Your task to perform on an android device: Open wifi settings Image 0: 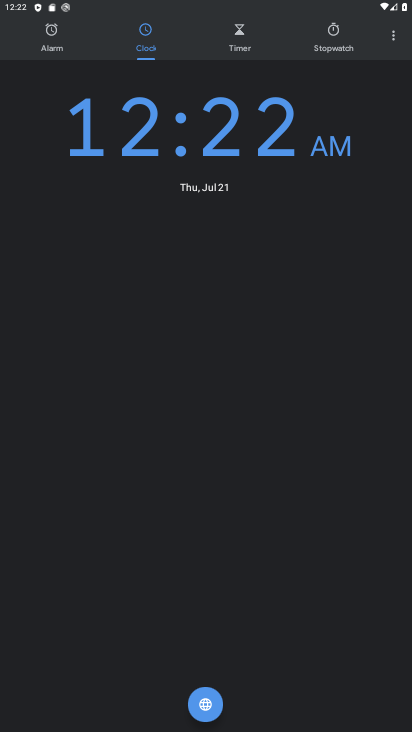
Step 0: press home button
Your task to perform on an android device: Open wifi settings Image 1: 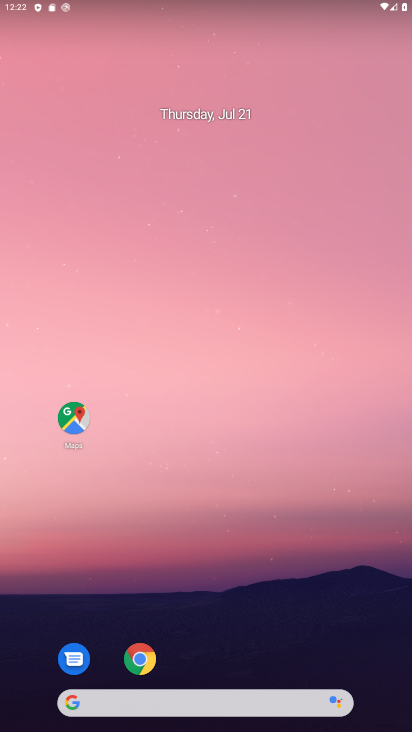
Step 1: drag from (183, 696) to (181, 94)
Your task to perform on an android device: Open wifi settings Image 2: 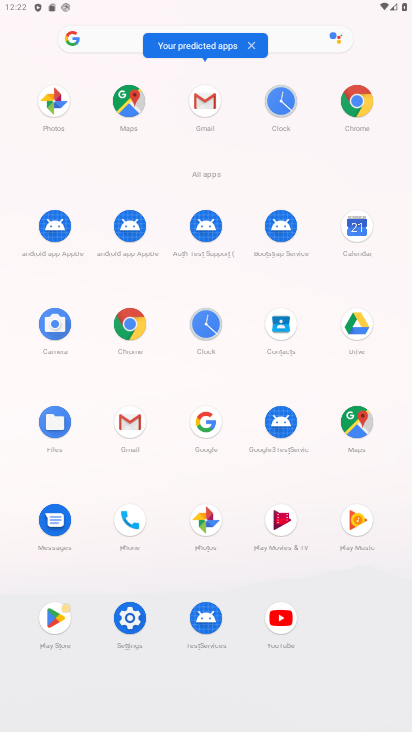
Step 2: click (128, 618)
Your task to perform on an android device: Open wifi settings Image 3: 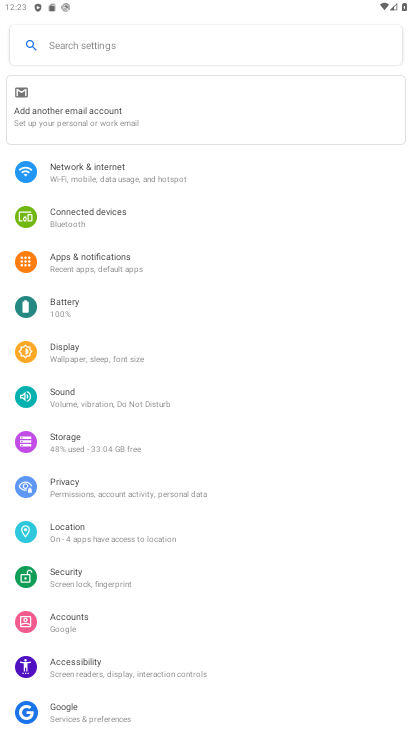
Step 3: click (125, 176)
Your task to perform on an android device: Open wifi settings Image 4: 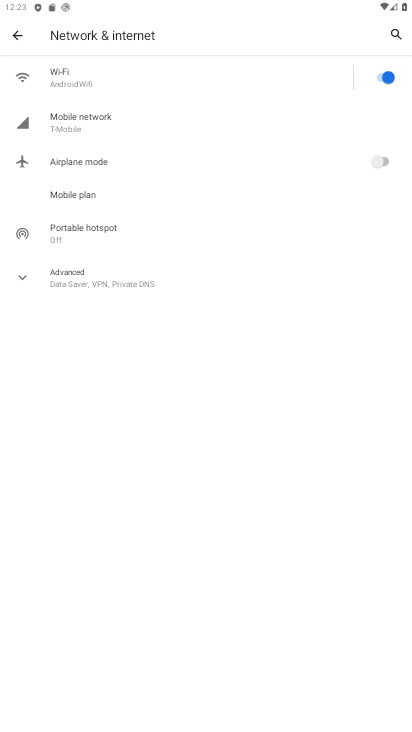
Step 4: click (80, 84)
Your task to perform on an android device: Open wifi settings Image 5: 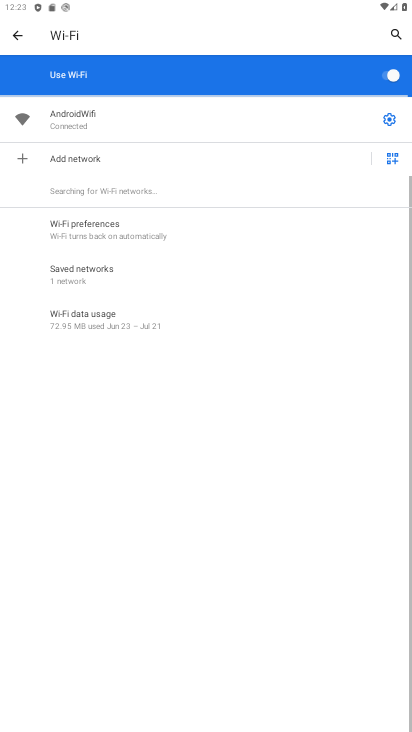
Step 5: click (391, 120)
Your task to perform on an android device: Open wifi settings Image 6: 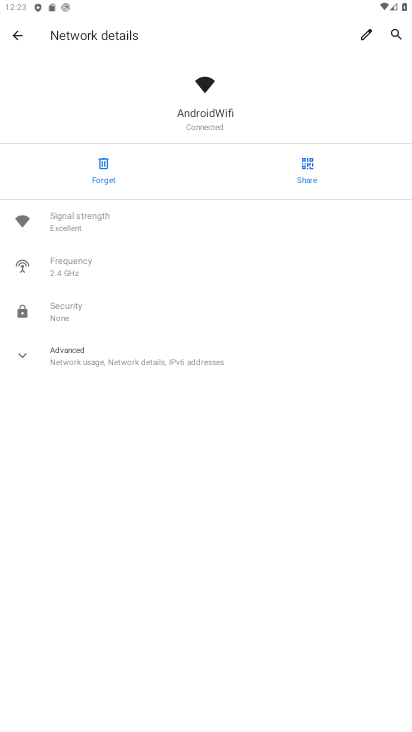
Step 6: task complete